Your task to perform on an android device: Open Chrome and go to the settings page Image 0: 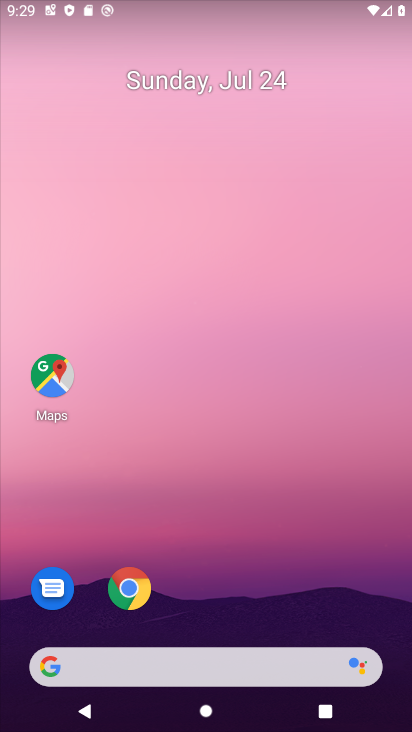
Step 0: click (126, 591)
Your task to perform on an android device: Open Chrome and go to the settings page Image 1: 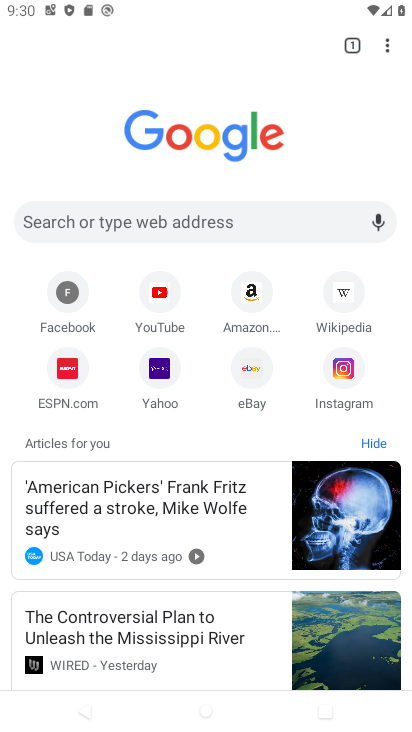
Step 1: click (386, 53)
Your task to perform on an android device: Open Chrome and go to the settings page Image 2: 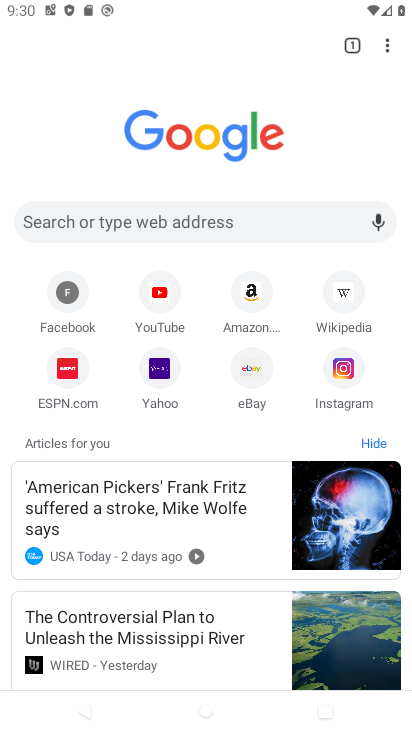
Step 2: click (386, 47)
Your task to perform on an android device: Open Chrome and go to the settings page Image 3: 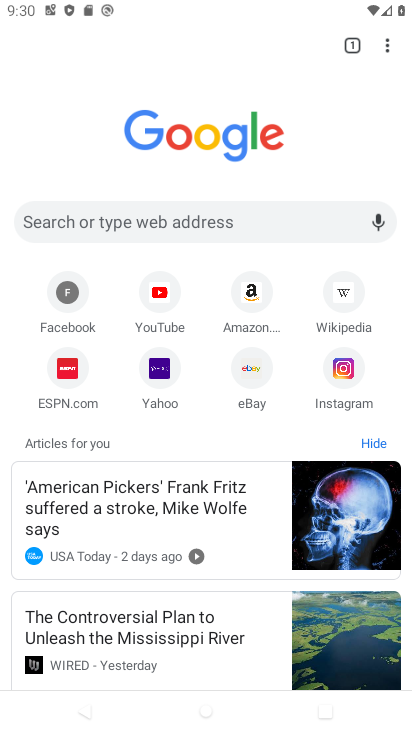
Step 3: click (386, 47)
Your task to perform on an android device: Open Chrome and go to the settings page Image 4: 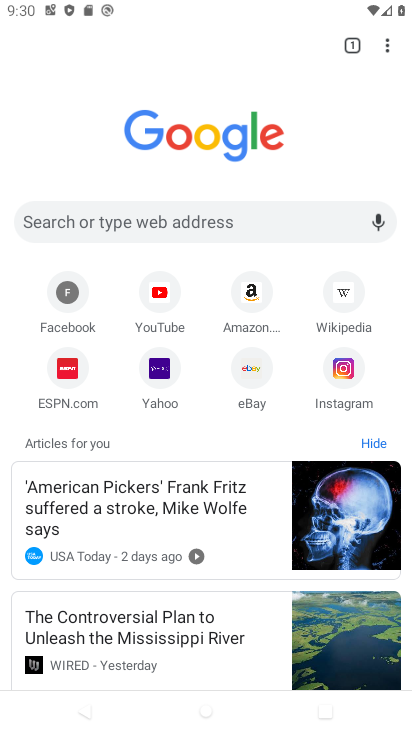
Step 4: click (391, 50)
Your task to perform on an android device: Open Chrome and go to the settings page Image 5: 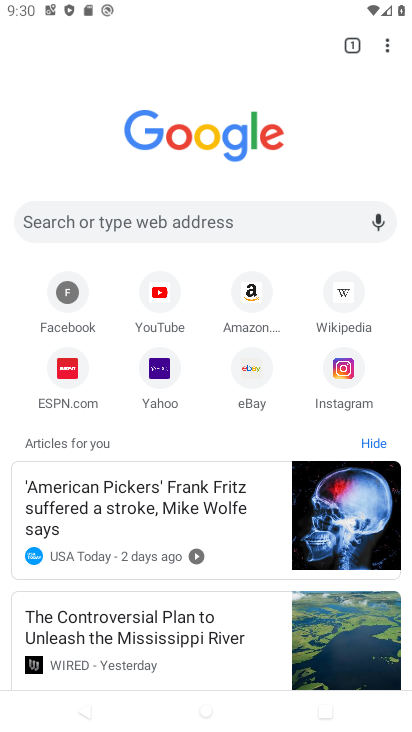
Step 5: click (391, 42)
Your task to perform on an android device: Open Chrome and go to the settings page Image 6: 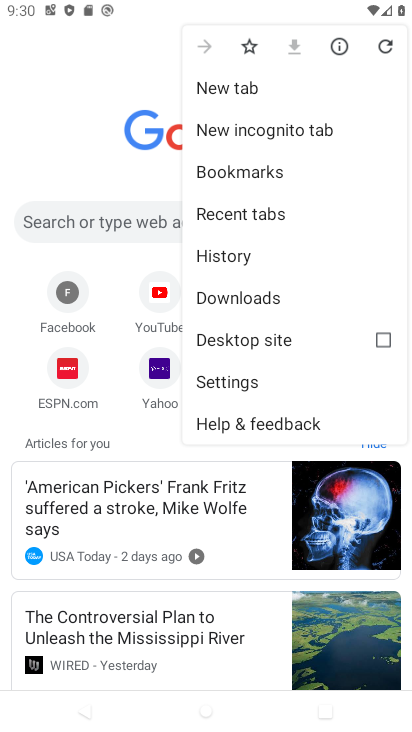
Step 6: click (227, 383)
Your task to perform on an android device: Open Chrome and go to the settings page Image 7: 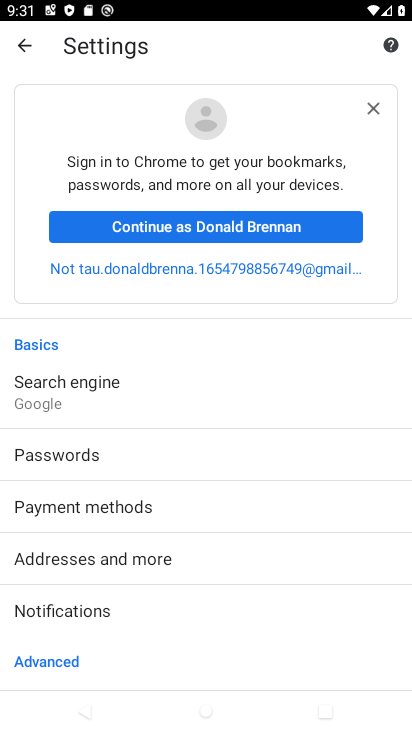
Step 7: task complete